Your task to perform on an android device: turn off airplane mode Image 0: 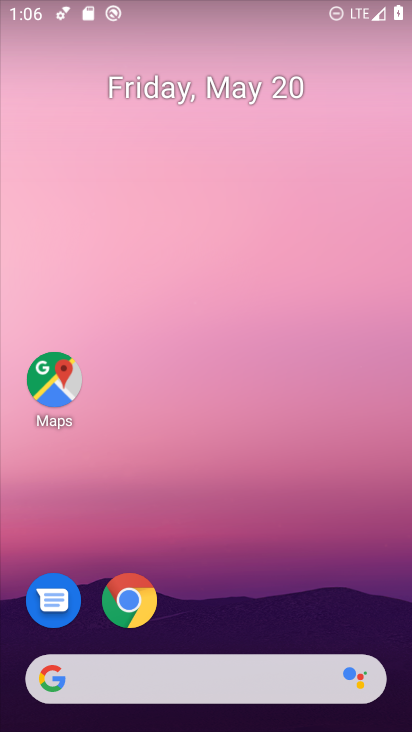
Step 0: drag from (171, 669) to (149, 32)
Your task to perform on an android device: turn off airplane mode Image 1: 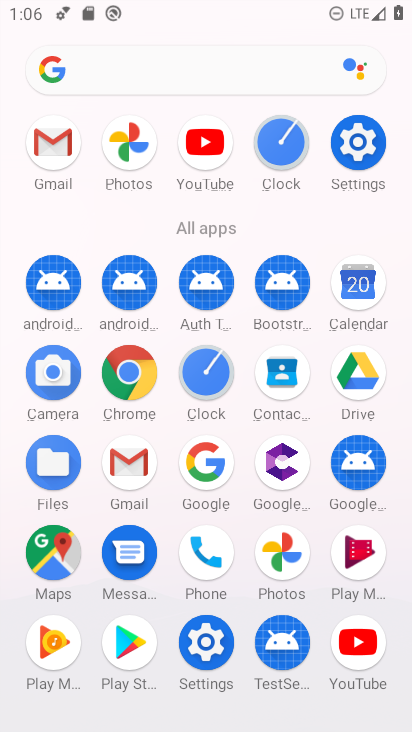
Step 1: click (373, 152)
Your task to perform on an android device: turn off airplane mode Image 2: 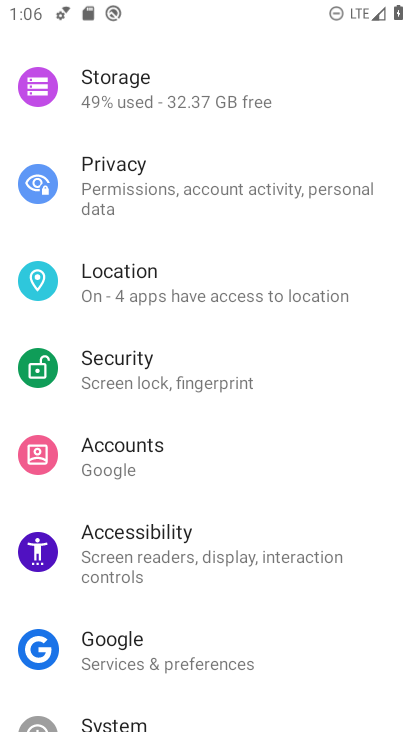
Step 2: drag from (130, 139) to (118, 686)
Your task to perform on an android device: turn off airplane mode Image 3: 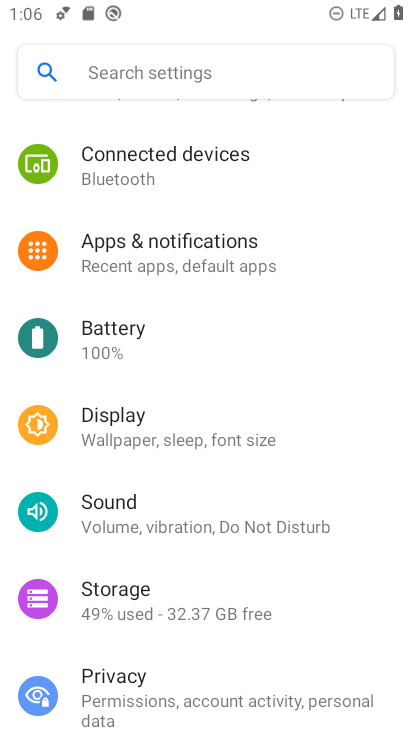
Step 3: drag from (199, 172) to (224, 632)
Your task to perform on an android device: turn off airplane mode Image 4: 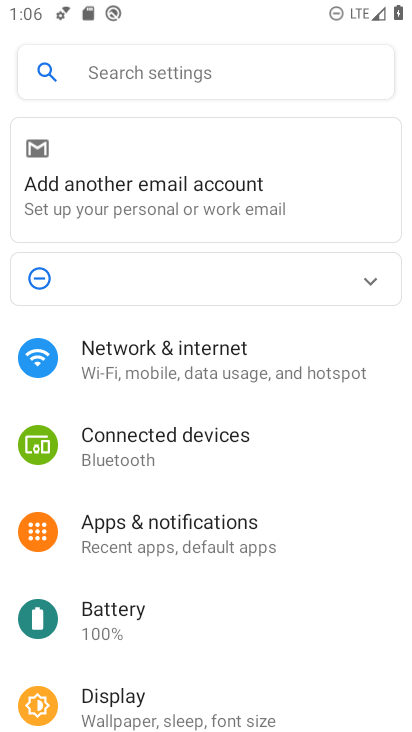
Step 4: click (147, 370)
Your task to perform on an android device: turn off airplane mode Image 5: 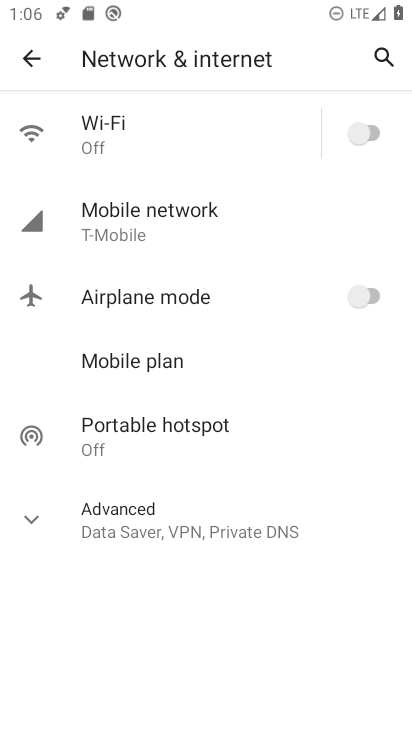
Step 5: task complete